Your task to perform on an android device: Do I have any events this weekend? Image 0: 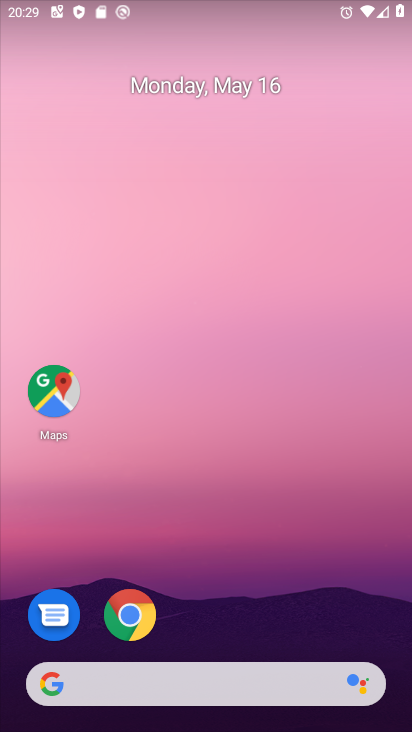
Step 0: click (212, 84)
Your task to perform on an android device: Do I have any events this weekend? Image 1: 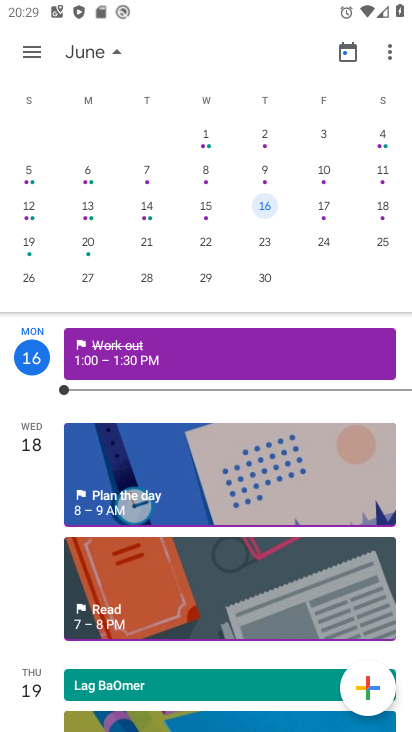
Step 1: click (104, 44)
Your task to perform on an android device: Do I have any events this weekend? Image 2: 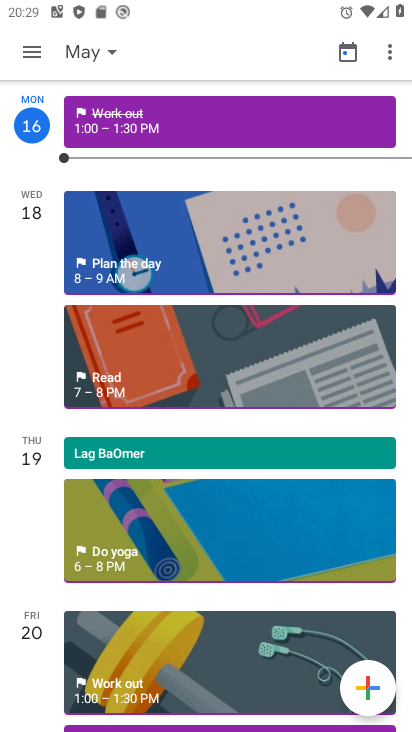
Step 2: click (104, 44)
Your task to perform on an android device: Do I have any events this weekend? Image 3: 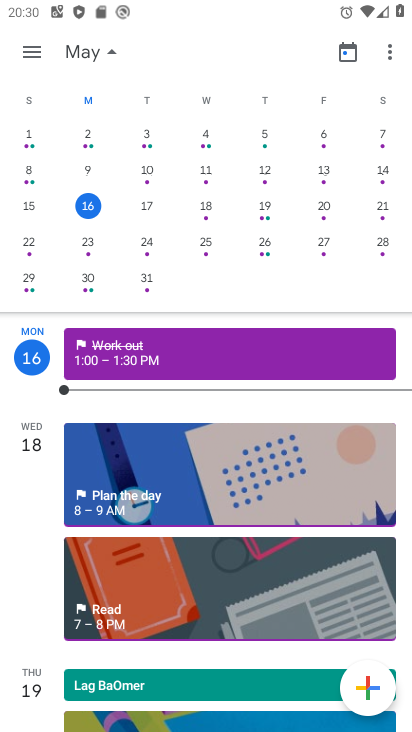
Step 3: click (383, 207)
Your task to perform on an android device: Do I have any events this weekend? Image 4: 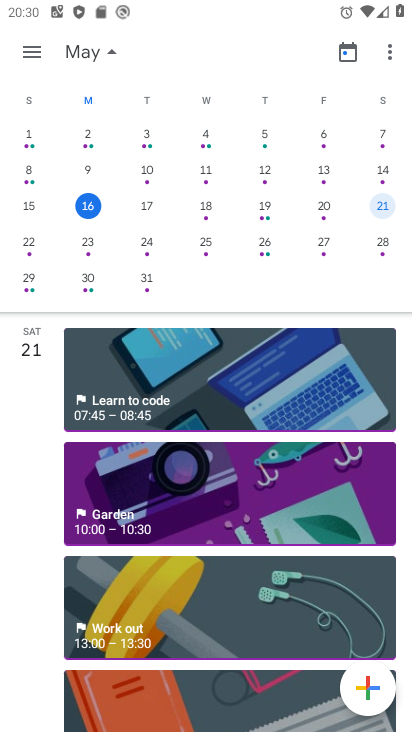
Step 4: task complete